Your task to perform on an android device: choose inbox layout in the gmail app Image 0: 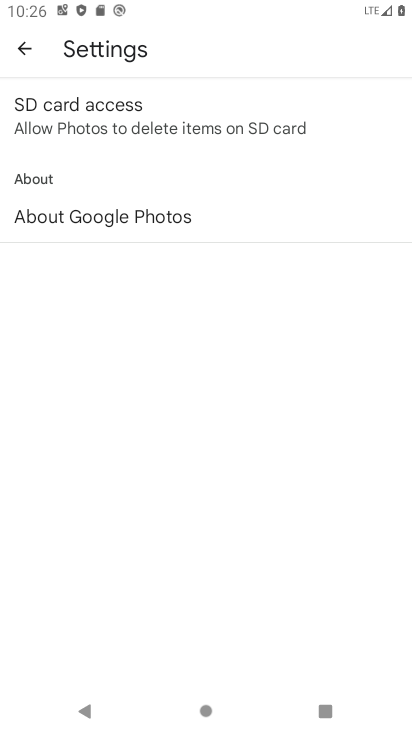
Step 0: press home button
Your task to perform on an android device: choose inbox layout in the gmail app Image 1: 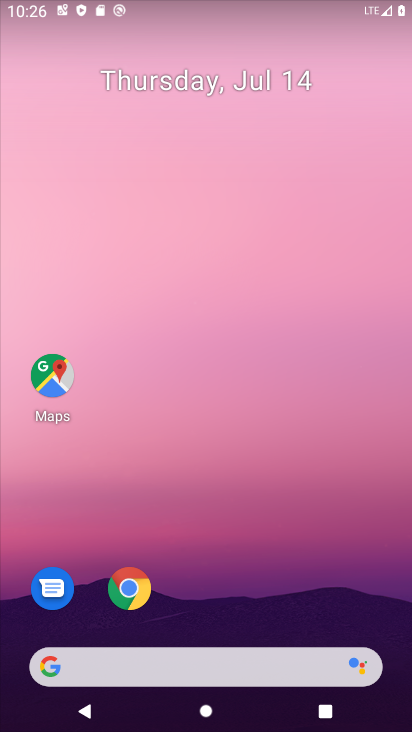
Step 1: drag from (385, 638) to (250, 0)
Your task to perform on an android device: choose inbox layout in the gmail app Image 2: 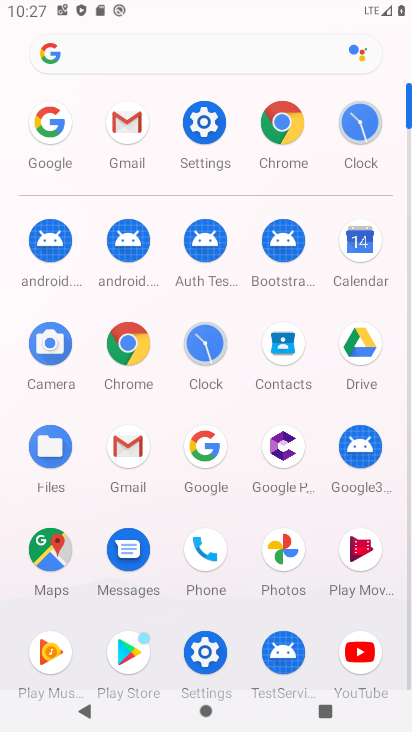
Step 2: click (132, 437)
Your task to perform on an android device: choose inbox layout in the gmail app Image 3: 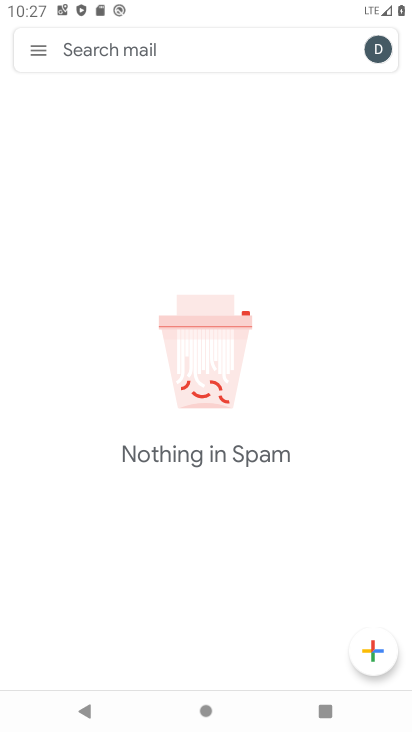
Step 3: task complete